Your task to perform on an android device: change notifications settings Image 0: 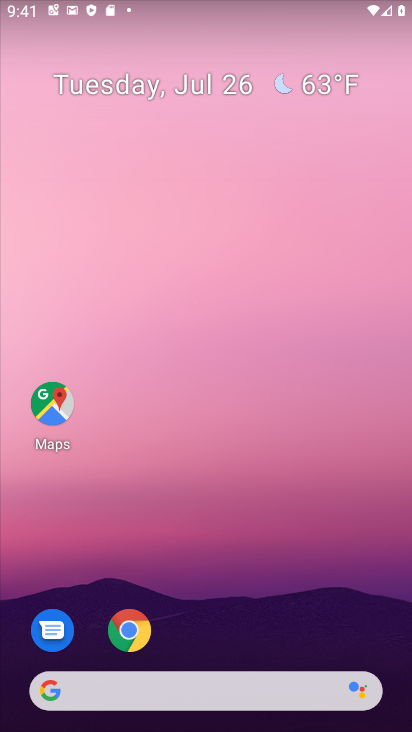
Step 0: press home button
Your task to perform on an android device: change notifications settings Image 1: 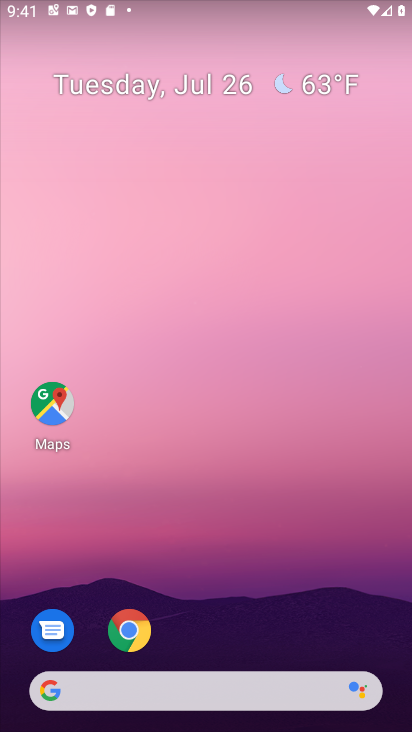
Step 1: drag from (227, 631) to (270, 192)
Your task to perform on an android device: change notifications settings Image 2: 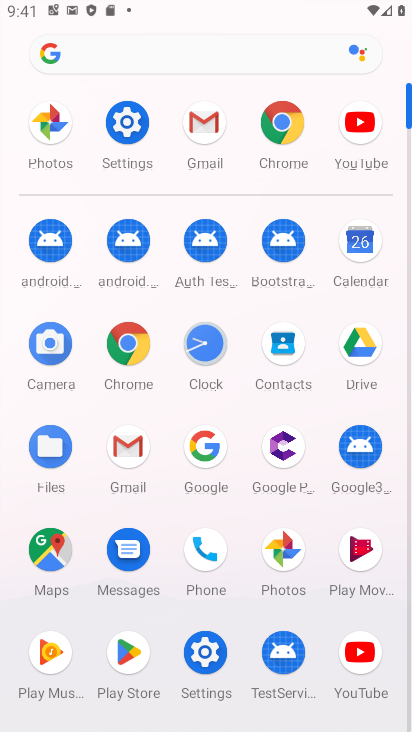
Step 2: click (124, 116)
Your task to perform on an android device: change notifications settings Image 3: 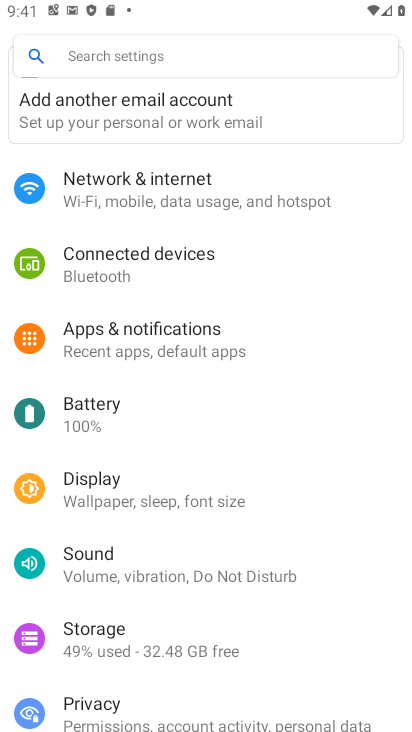
Step 3: click (245, 328)
Your task to perform on an android device: change notifications settings Image 4: 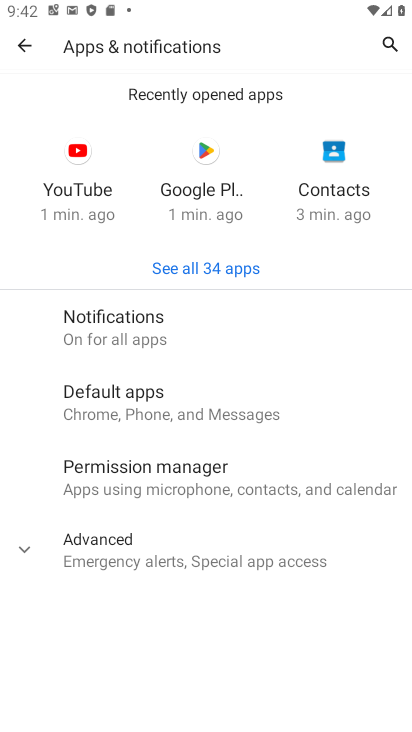
Step 4: click (183, 320)
Your task to perform on an android device: change notifications settings Image 5: 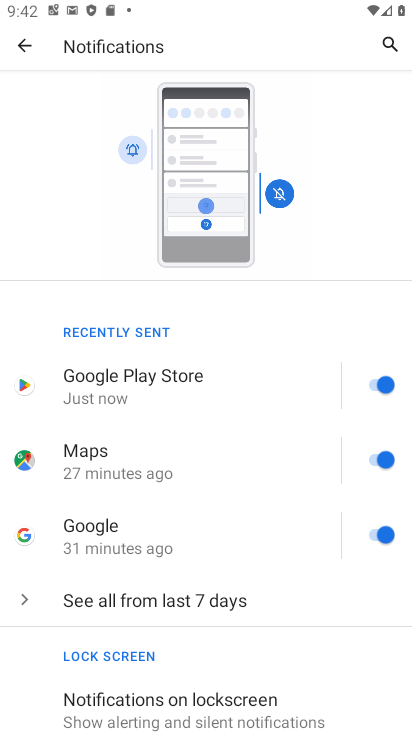
Step 5: drag from (222, 660) to (228, 177)
Your task to perform on an android device: change notifications settings Image 6: 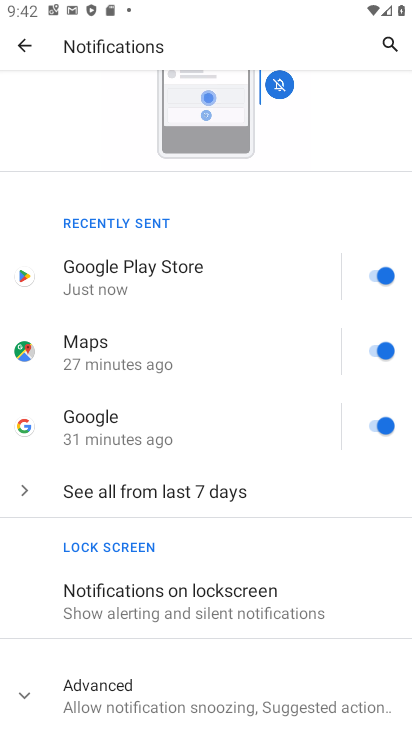
Step 6: click (20, 691)
Your task to perform on an android device: change notifications settings Image 7: 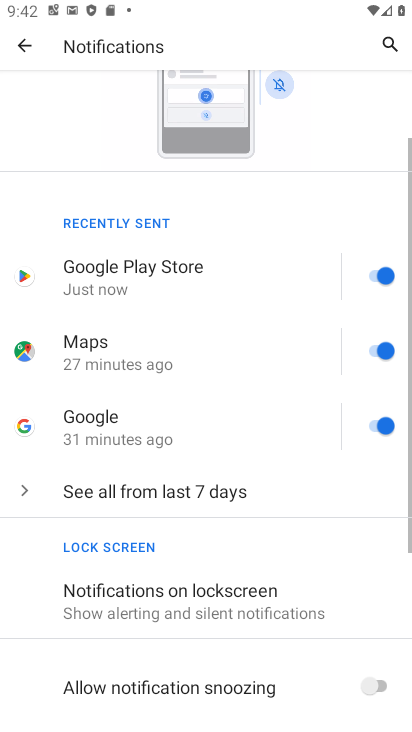
Step 7: click (374, 271)
Your task to perform on an android device: change notifications settings Image 8: 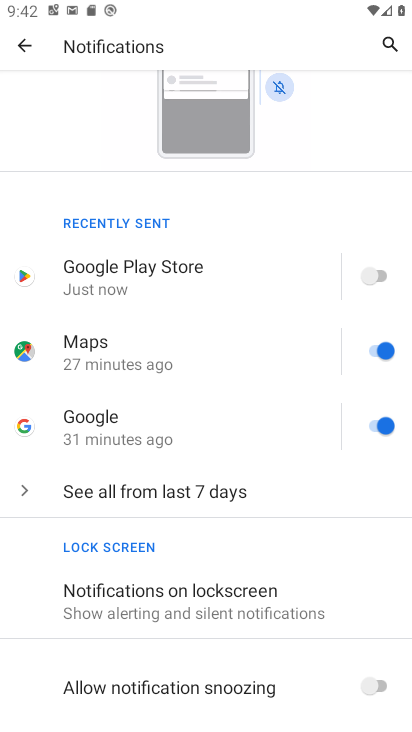
Step 8: click (379, 347)
Your task to perform on an android device: change notifications settings Image 9: 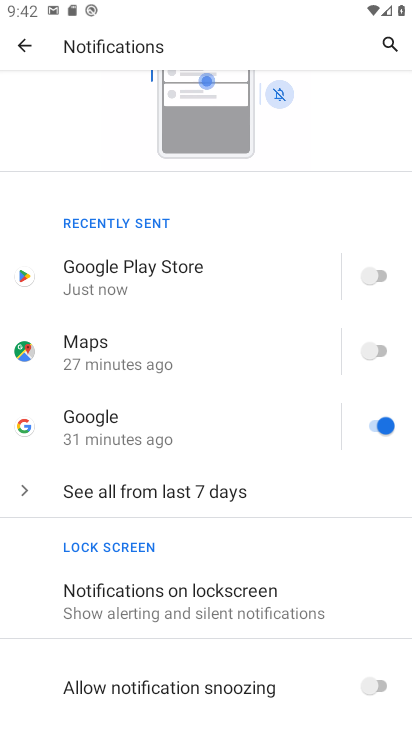
Step 9: click (377, 417)
Your task to perform on an android device: change notifications settings Image 10: 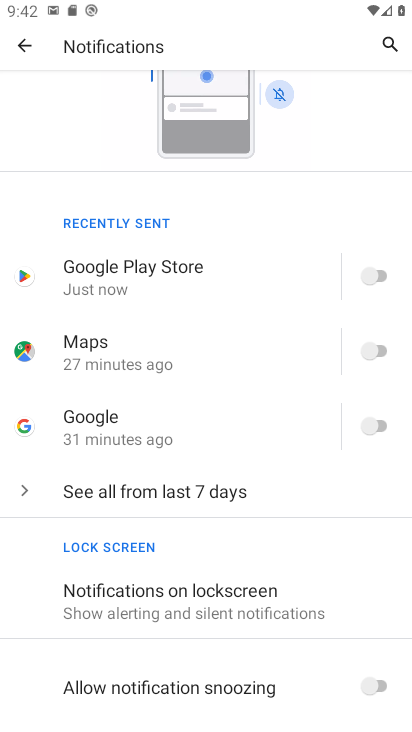
Step 10: drag from (263, 645) to (267, 44)
Your task to perform on an android device: change notifications settings Image 11: 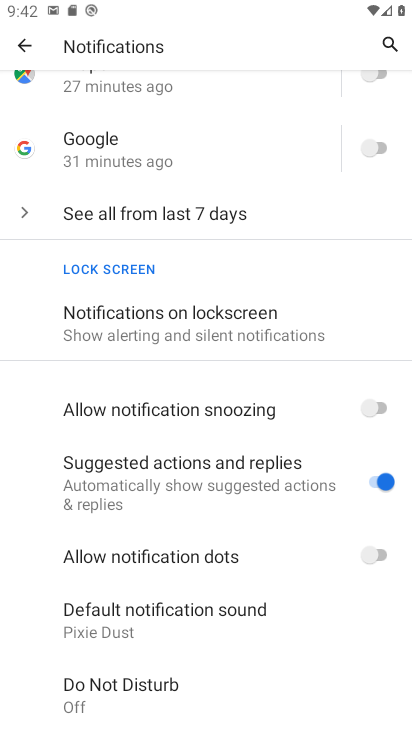
Step 11: click (374, 403)
Your task to perform on an android device: change notifications settings Image 12: 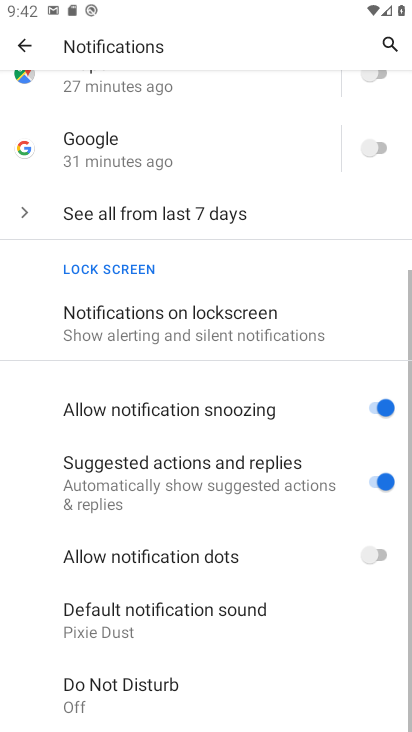
Step 12: click (371, 552)
Your task to perform on an android device: change notifications settings Image 13: 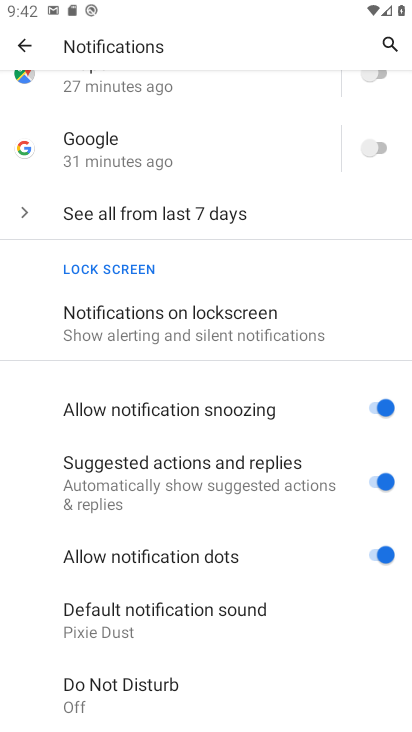
Step 13: task complete